Your task to perform on an android device: open chrome and create a bookmark for the current page Image 0: 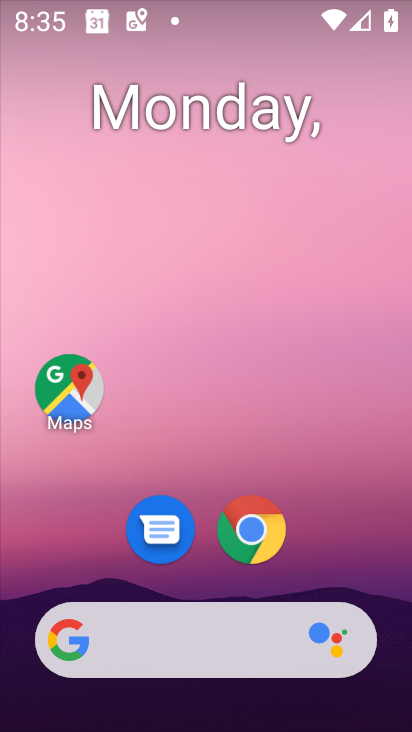
Step 0: press home button
Your task to perform on an android device: open chrome and create a bookmark for the current page Image 1: 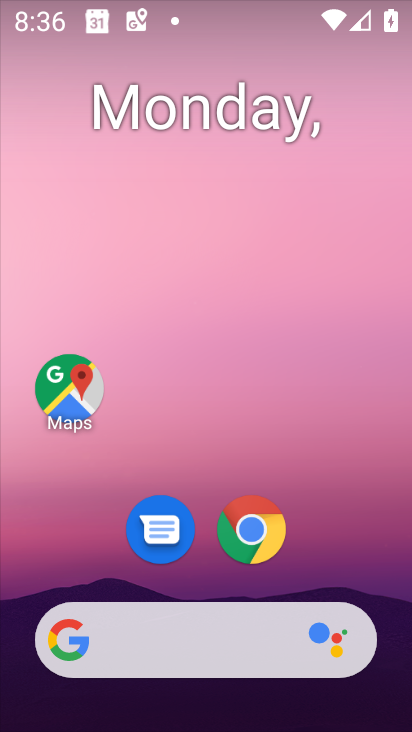
Step 1: click (253, 519)
Your task to perform on an android device: open chrome and create a bookmark for the current page Image 2: 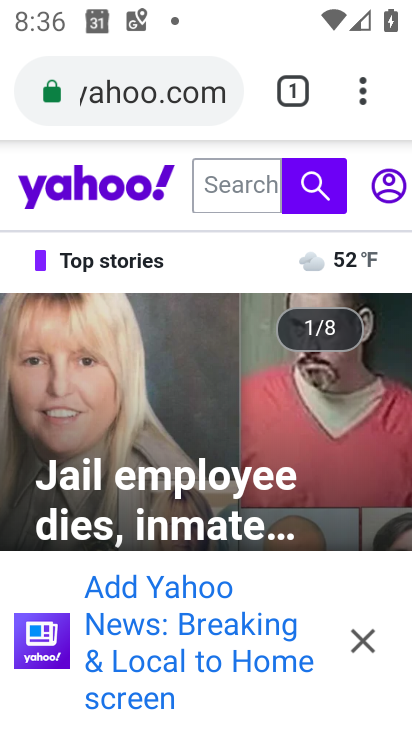
Step 2: click (358, 86)
Your task to perform on an android device: open chrome and create a bookmark for the current page Image 3: 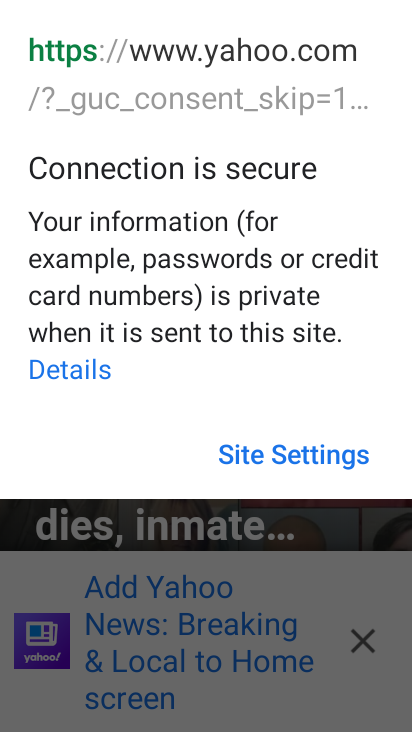
Step 3: click (358, 86)
Your task to perform on an android device: open chrome and create a bookmark for the current page Image 4: 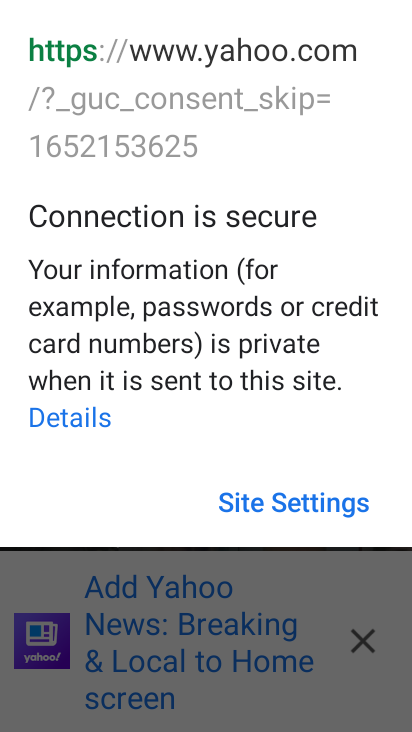
Step 4: click (125, 486)
Your task to perform on an android device: open chrome and create a bookmark for the current page Image 5: 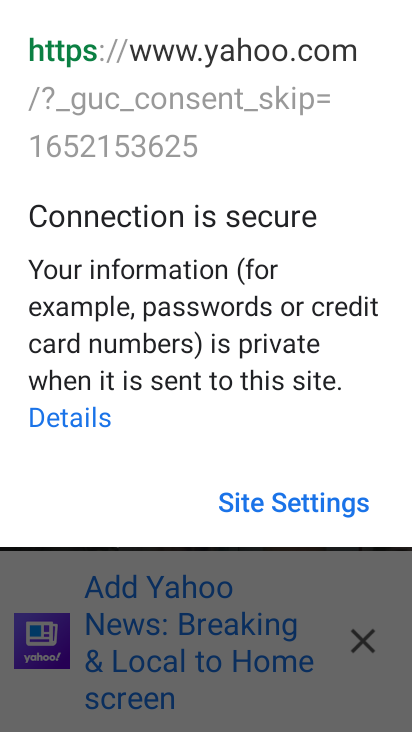
Step 5: click (284, 582)
Your task to perform on an android device: open chrome and create a bookmark for the current page Image 6: 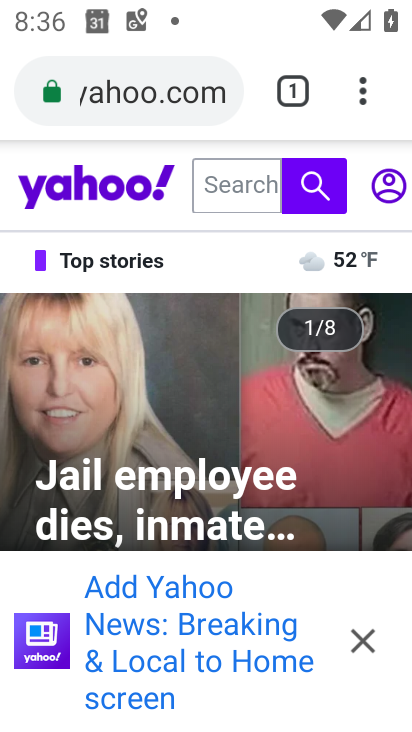
Step 6: click (362, 95)
Your task to perform on an android device: open chrome and create a bookmark for the current page Image 7: 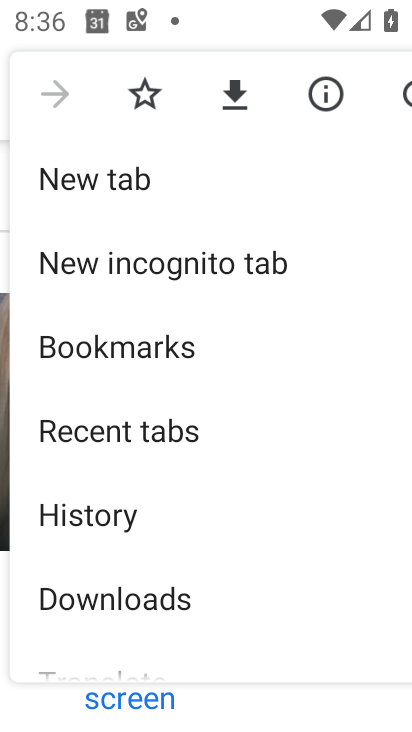
Step 7: click (143, 99)
Your task to perform on an android device: open chrome and create a bookmark for the current page Image 8: 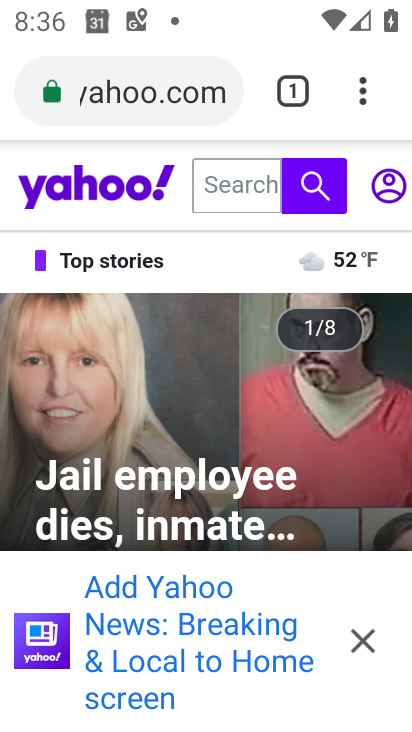
Step 8: click (356, 94)
Your task to perform on an android device: open chrome and create a bookmark for the current page Image 9: 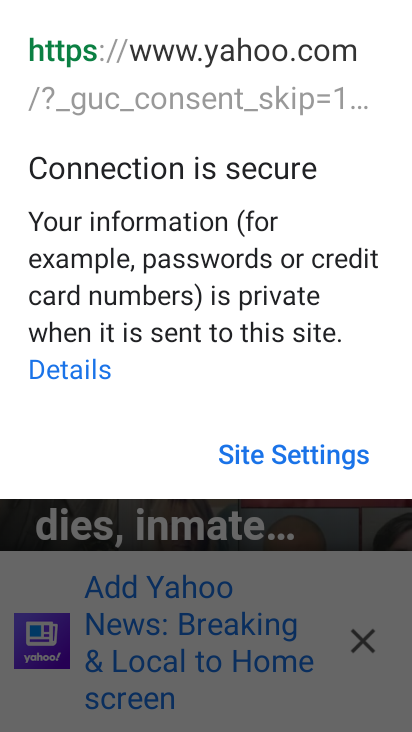
Step 9: task complete